Your task to perform on an android device: turn off priority inbox in the gmail app Image 0: 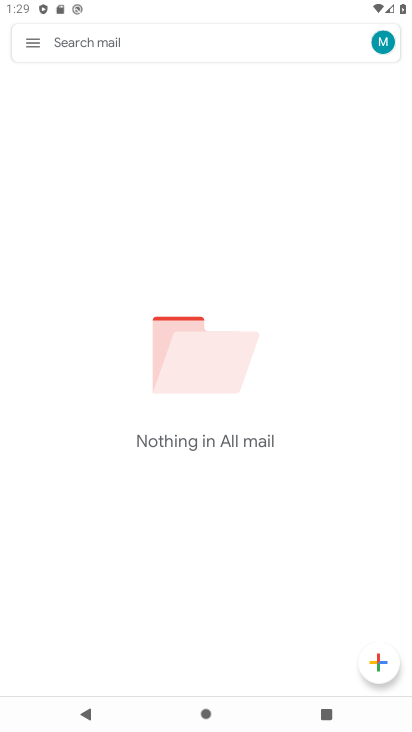
Step 0: click (28, 42)
Your task to perform on an android device: turn off priority inbox in the gmail app Image 1: 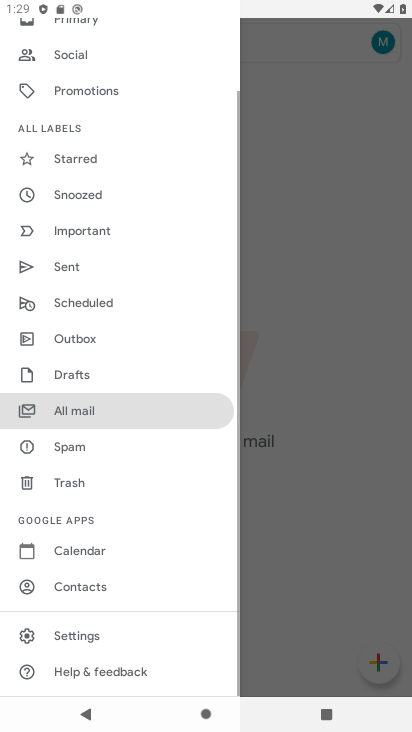
Step 1: click (85, 625)
Your task to perform on an android device: turn off priority inbox in the gmail app Image 2: 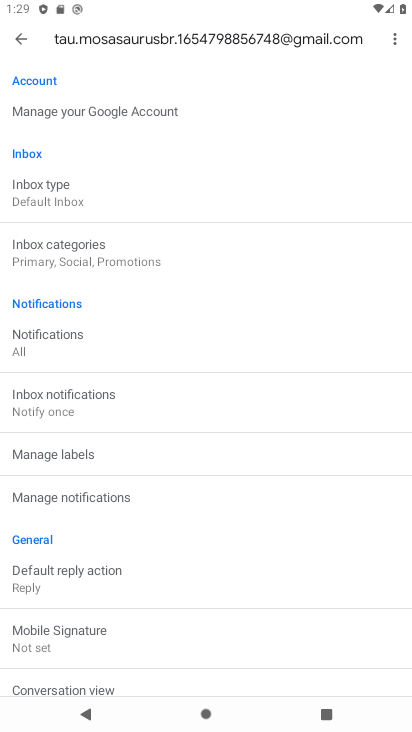
Step 2: click (78, 195)
Your task to perform on an android device: turn off priority inbox in the gmail app Image 3: 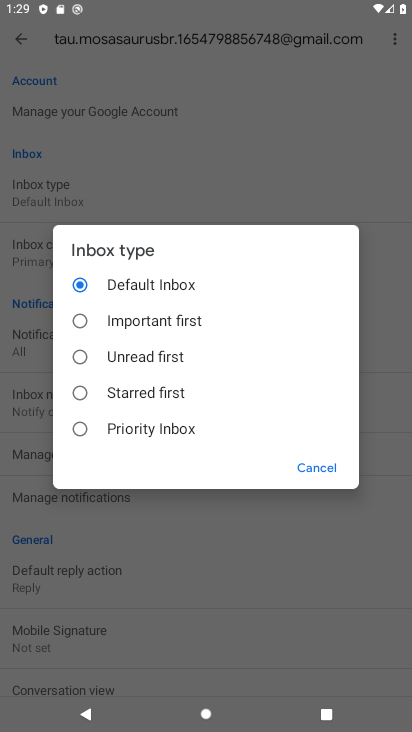
Step 3: task complete